Your task to perform on an android device: Set the phone to "Do not disturb". Image 0: 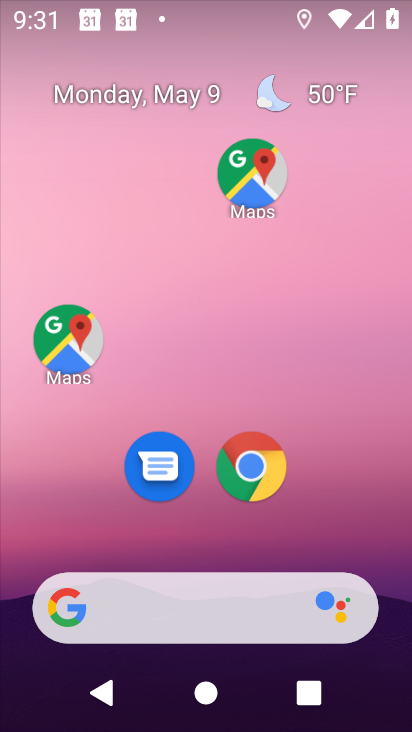
Step 0: drag from (298, 547) to (367, 35)
Your task to perform on an android device: Set the phone to "Do not disturb". Image 1: 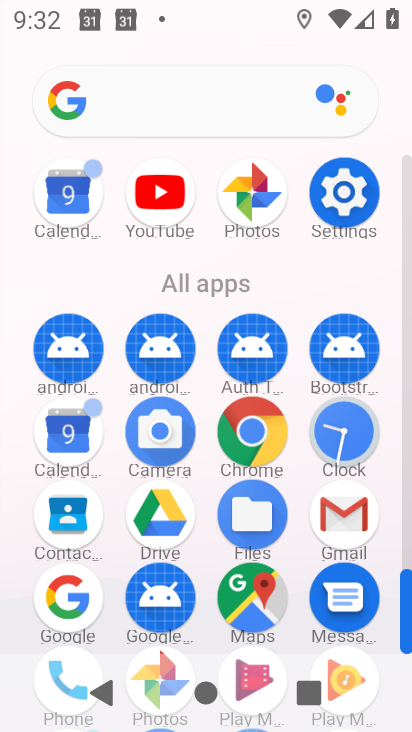
Step 1: click (337, 186)
Your task to perform on an android device: Set the phone to "Do not disturb". Image 2: 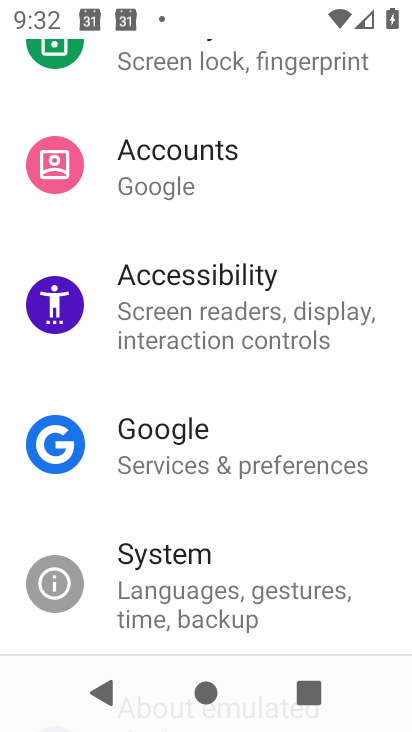
Step 2: drag from (194, 334) to (248, 512)
Your task to perform on an android device: Set the phone to "Do not disturb". Image 3: 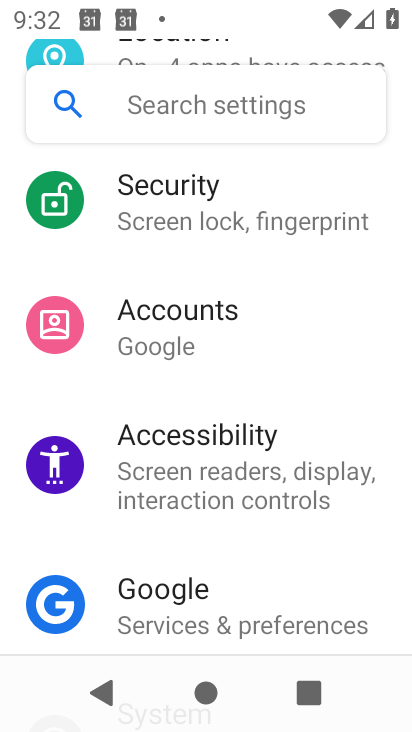
Step 3: drag from (254, 364) to (310, 526)
Your task to perform on an android device: Set the phone to "Do not disturb". Image 4: 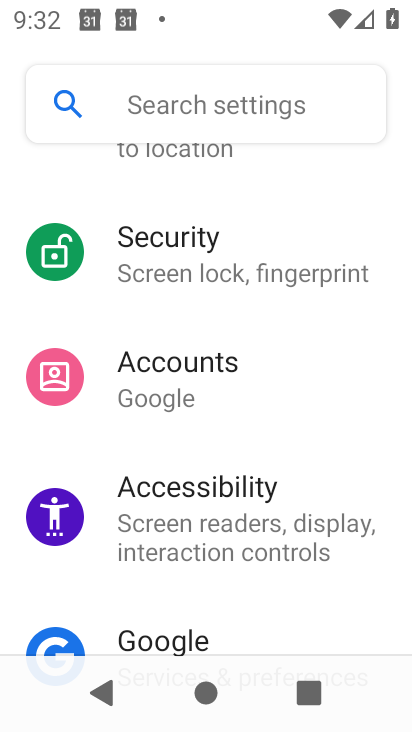
Step 4: drag from (325, 369) to (334, 536)
Your task to perform on an android device: Set the phone to "Do not disturb". Image 5: 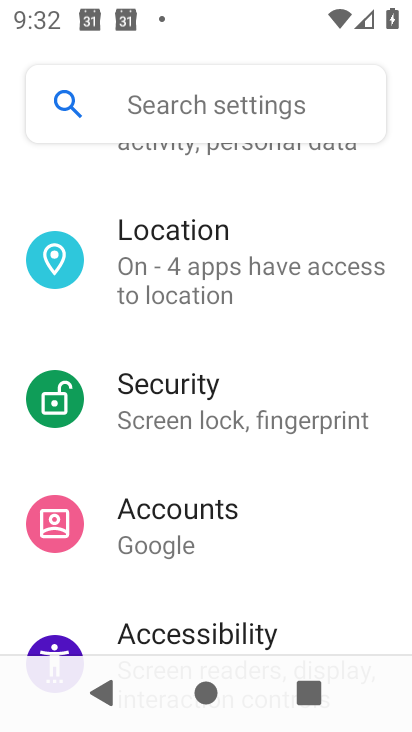
Step 5: drag from (320, 326) to (323, 445)
Your task to perform on an android device: Set the phone to "Do not disturb". Image 6: 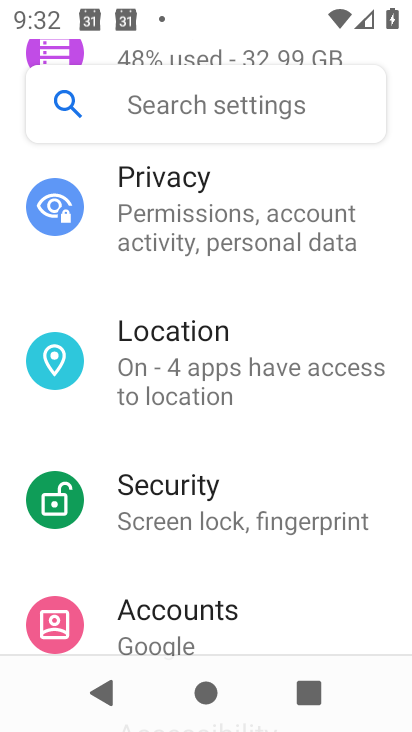
Step 6: drag from (316, 355) to (340, 435)
Your task to perform on an android device: Set the phone to "Do not disturb". Image 7: 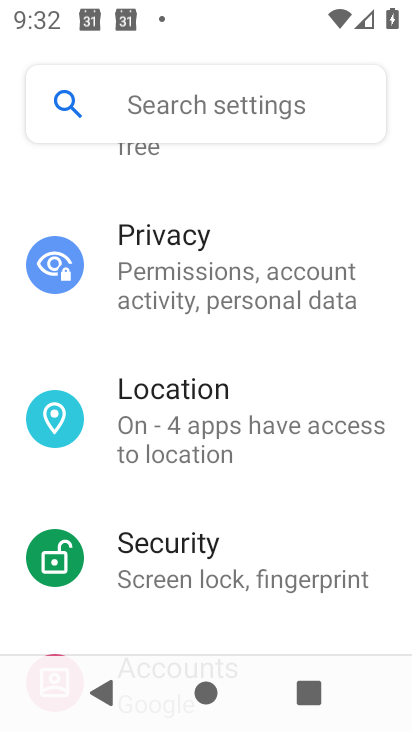
Step 7: drag from (316, 342) to (338, 454)
Your task to perform on an android device: Set the phone to "Do not disturb". Image 8: 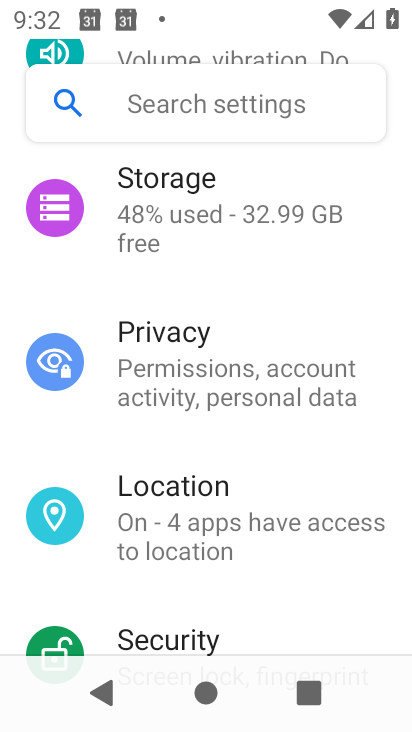
Step 8: drag from (318, 328) to (328, 448)
Your task to perform on an android device: Set the phone to "Do not disturb". Image 9: 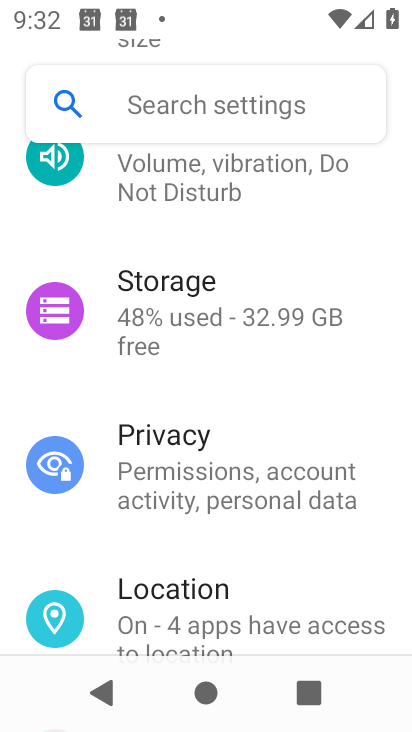
Step 9: drag from (316, 355) to (321, 441)
Your task to perform on an android device: Set the phone to "Do not disturb". Image 10: 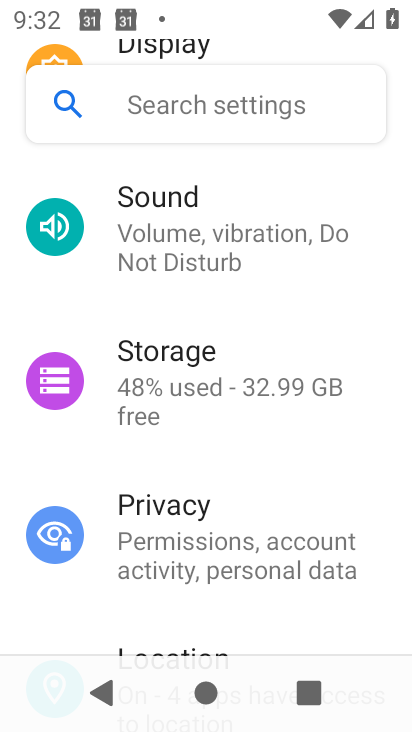
Step 10: click (297, 256)
Your task to perform on an android device: Set the phone to "Do not disturb". Image 11: 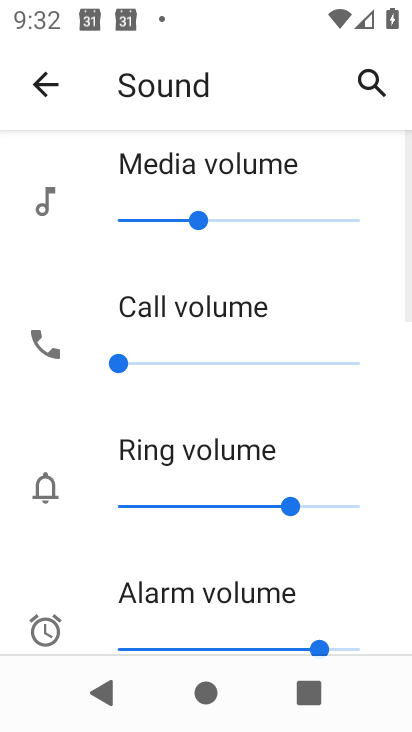
Step 11: drag from (256, 603) to (253, 484)
Your task to perform on an android device: Set the phone to "Do not disturb". Image 12: 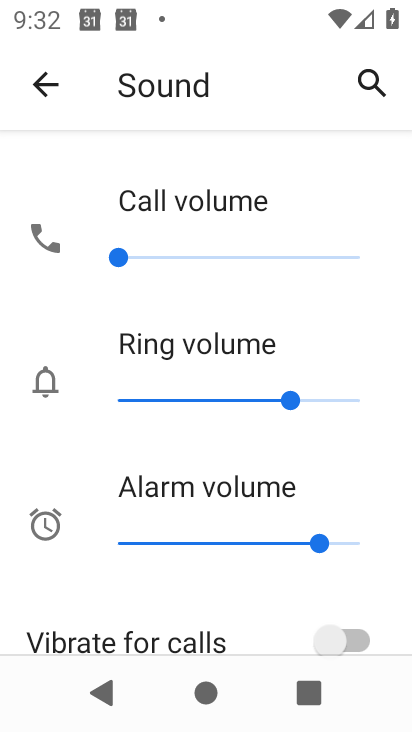
Step 12: drag from (177, 637) to (225, 507)
Your task to perform on an android device: Set the phone to "Do not disturb". Image 13: 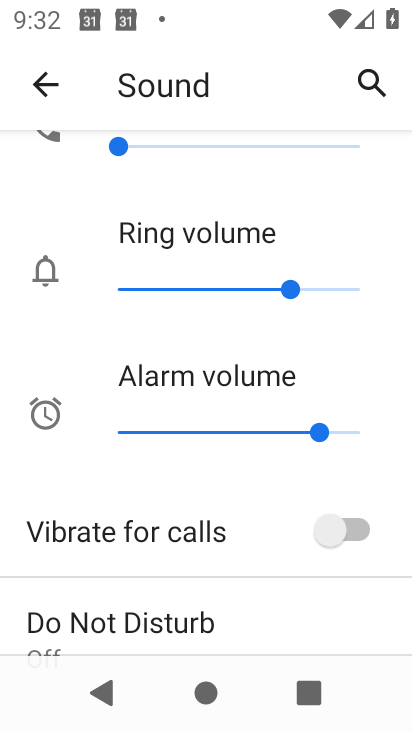
Step 13: click (190, 612)
Your task to perform on an android device: Set the phone to "Do not disturb". Image 14: 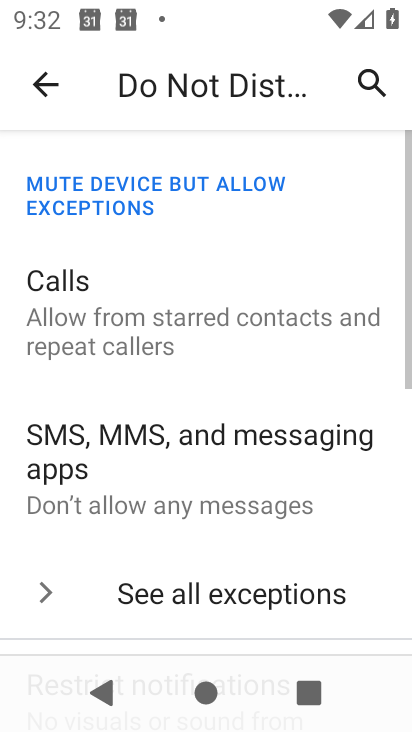
Step 14: drag from (188, 612) to (353, 366)
Your task to perform on an android device: Set the phone to "Do not disturb". Image 15: 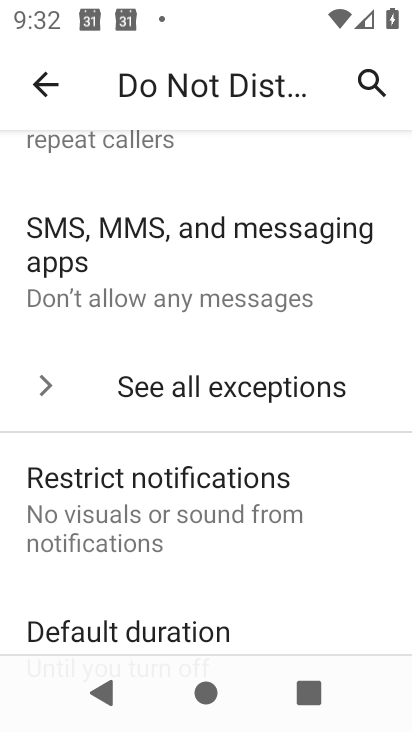
Step 15: drag from (287, 581) to (315, 441)
Your task to perform on an android device: Set the phone to "Do not disturb". Image 16: 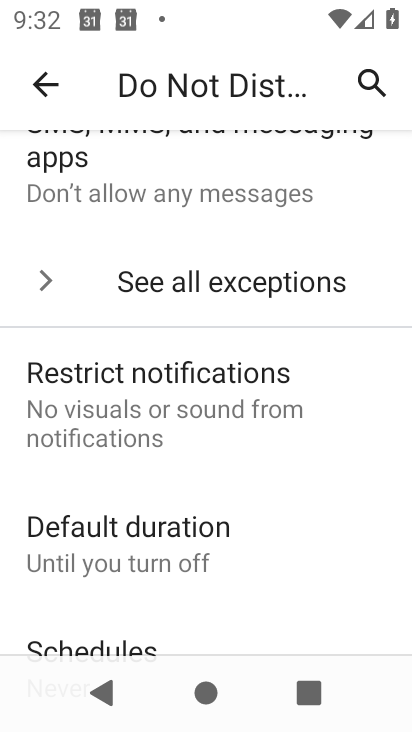
Step 16: drag from (214, 627) to (243, 471)
Your task to perform on an android device: Set the phone to "Do not disturb". Image 17: 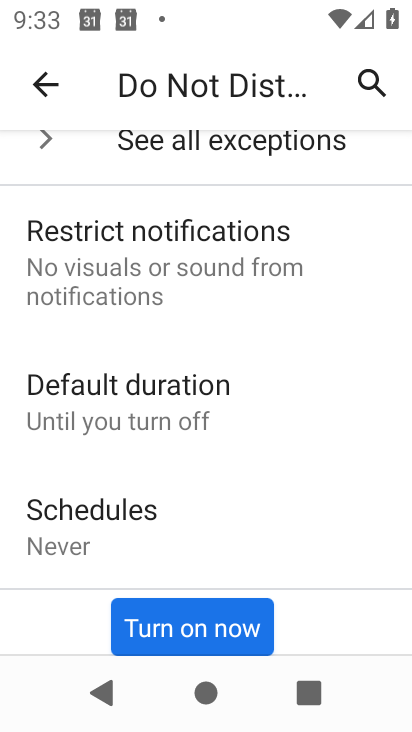
Step 17: click (190, 628)
Your task to perform on an android device: Set the phone to "Do not disturb". Image 18: 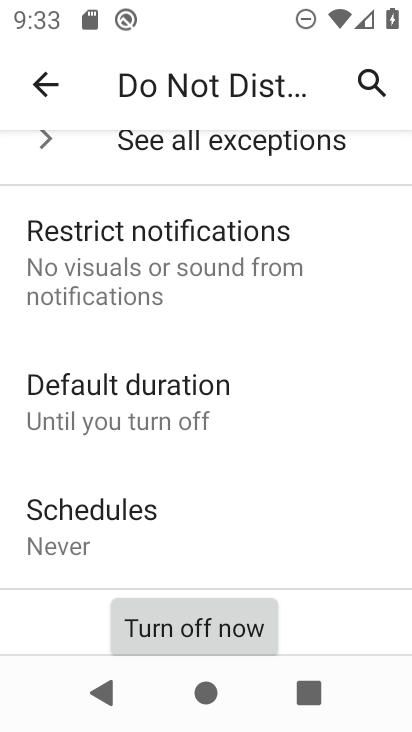
Step 18: task complete